Your task to perform on an android device: delete a single message in the gmail app Image 0: 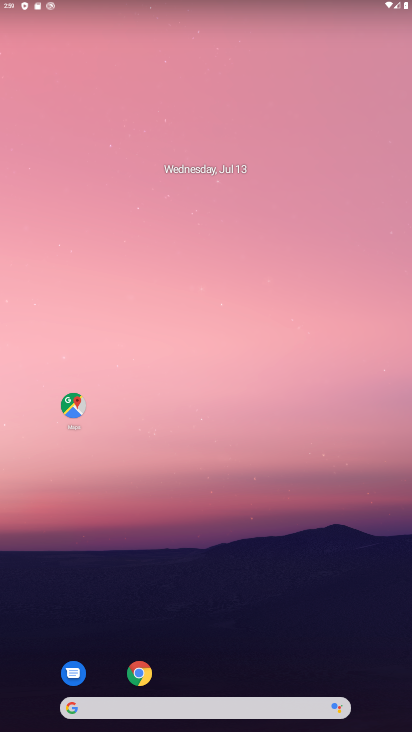
Step 0: drag from (202, 521) to (286, 109)
Your task to perform on an android device: delete a single message in the gmail app Image 1: 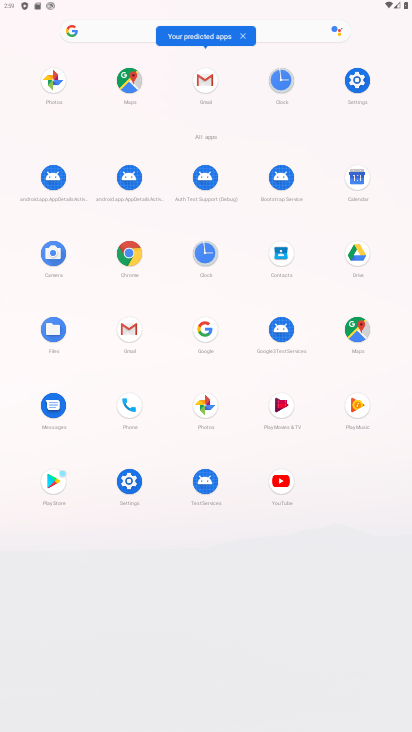
Step 1: click (127, 336)
Your task to perform on an android device: delete a single message in the gmail app Image 2: 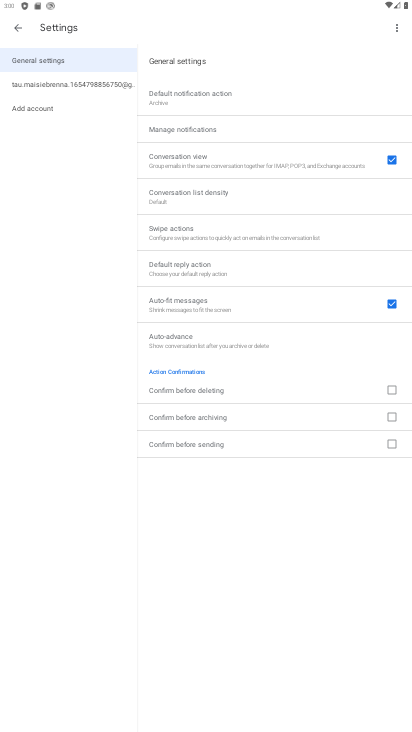
Step 2: press back button
Your task to perform on an android device: delete a single message in the gmail app Image 3: 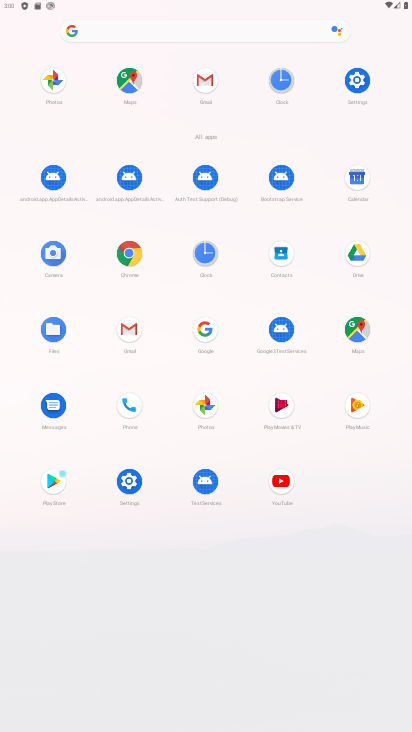
Step 3: click (133, 339)
Your task to perform on an android device: delete a single message in the gmail app Image 4: 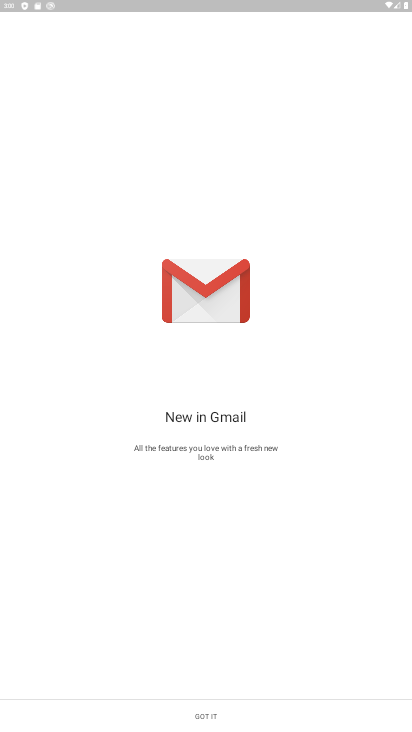
Step 4: click (214, 718)
Your task to perform on an android device: delete a single message in the gmail app Image 5: 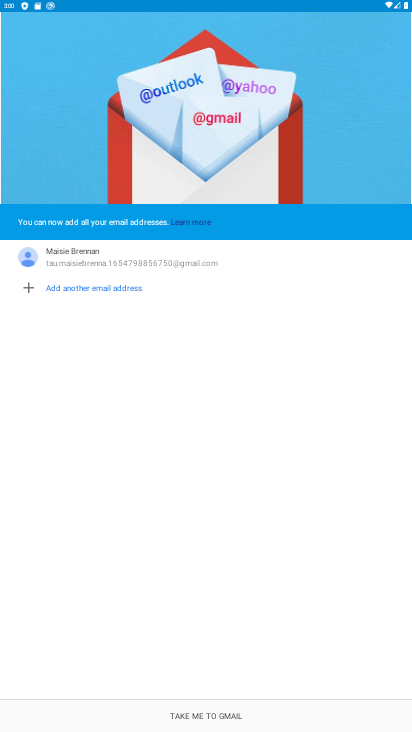
Step 5: click (211, 723)
Your task to perform on an android device: delete a single message in the gmail app Image 6: 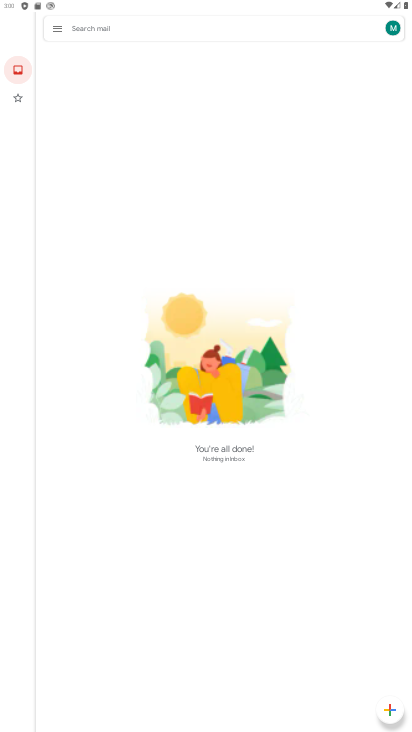
Step 6: click (54, 33)
Your task to perform on an android device: delete a single message in the gmail app Image 7: 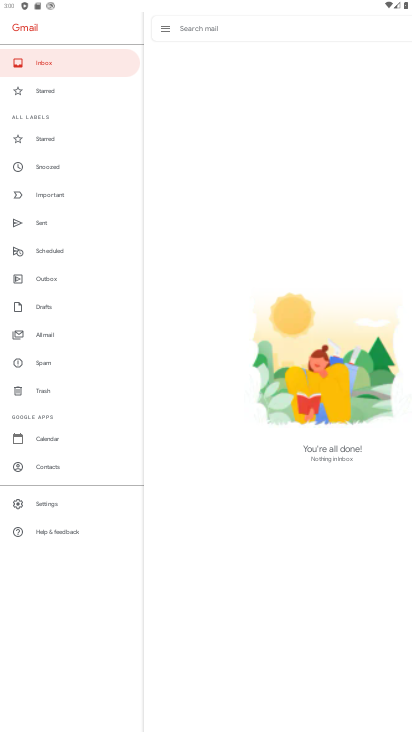
Step 7: click (66, 337)
Your task to perform on an android device: delete a single message in the gmail app Image 8: 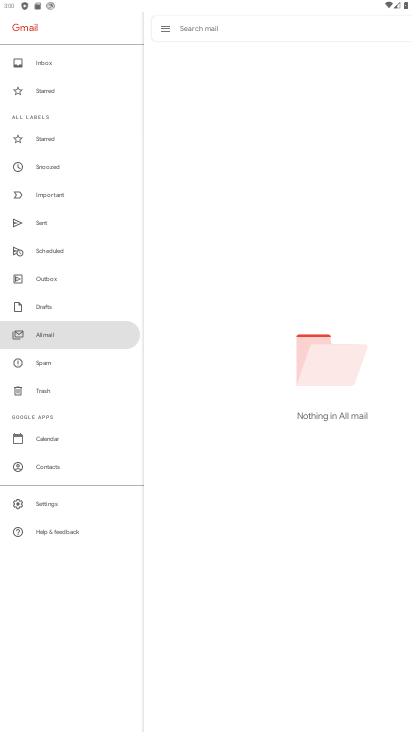
Step 8: task complete